Your task to perform on an android device: Open notification settings Image 0: 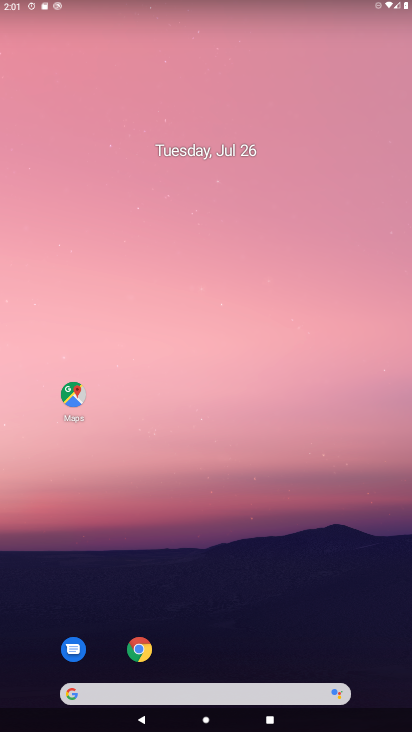
Step 0: drag from (350, 599) to (208, 44)
Your task to perform on an android device: Open notification settings Image 1: 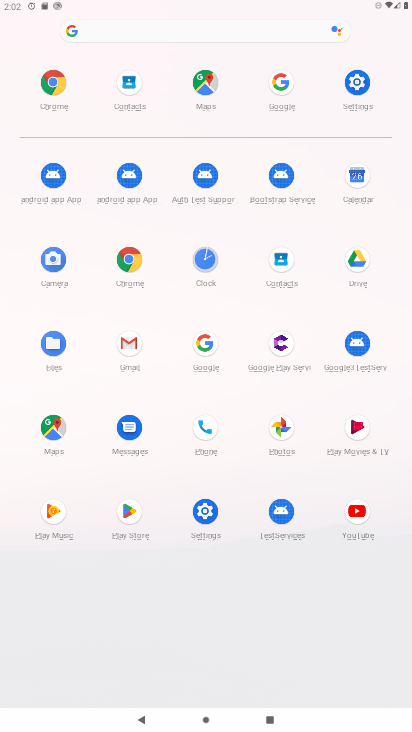
Step 1: click (190, 521)
Your task to perform on an android device: Open notification settings Image 2: 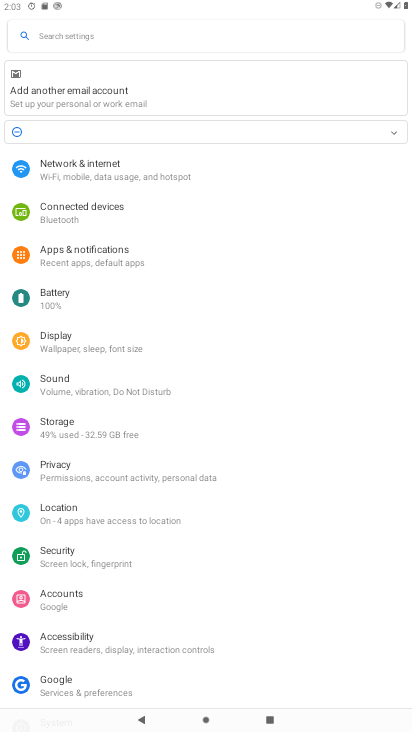
Step 2: click (86, 263)
Your task to perform on an android device: Open notification settings Image 3: 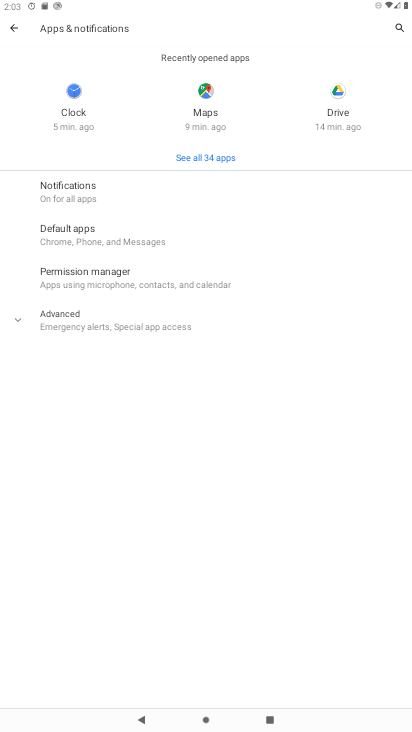
Step 3: task complete